Your task to perform on an android device: Open my contact list Image 0: 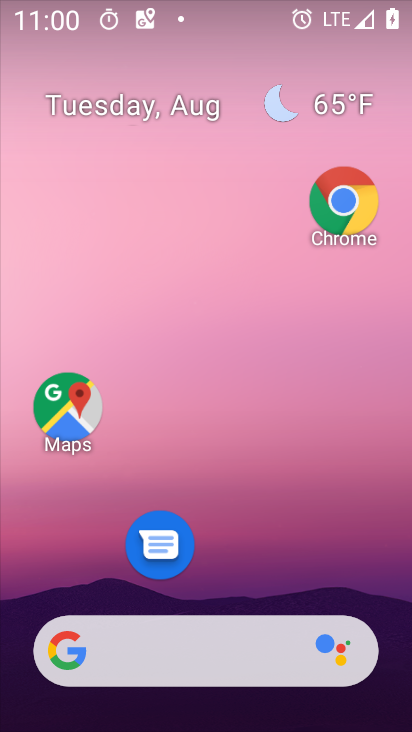
Step 0: drag from (269, 614) to (284, 201)
Your task to perform on an android device: Open my contact list Image 1: 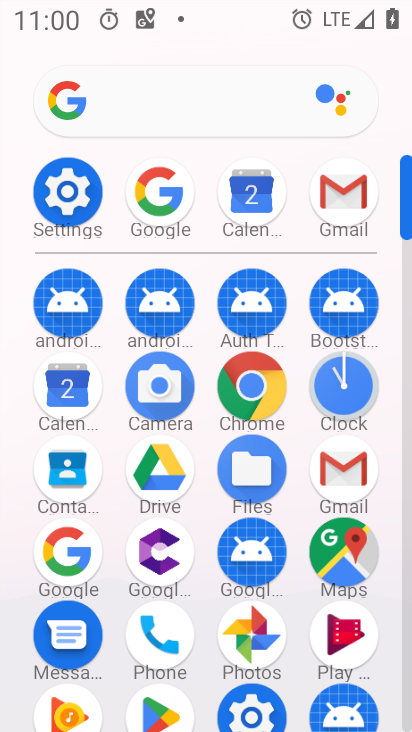
Step 1: click (78, 475)
Your task to perform on an android device: Open my contact list Image 2: 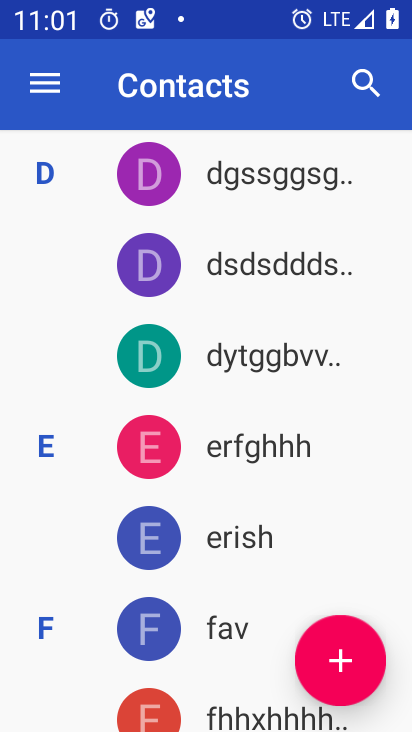
Step 2: task complete